Your task to perform on an android device: Open maps Image 0: 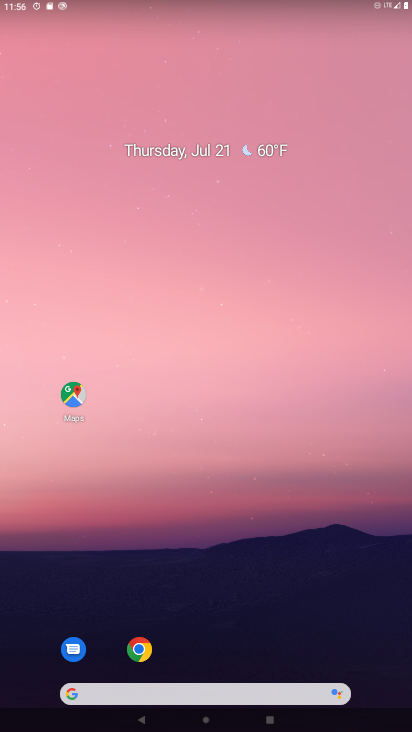
Step 0: click (73, 395)
Your task to perform on an android device: Open maps Image 1: 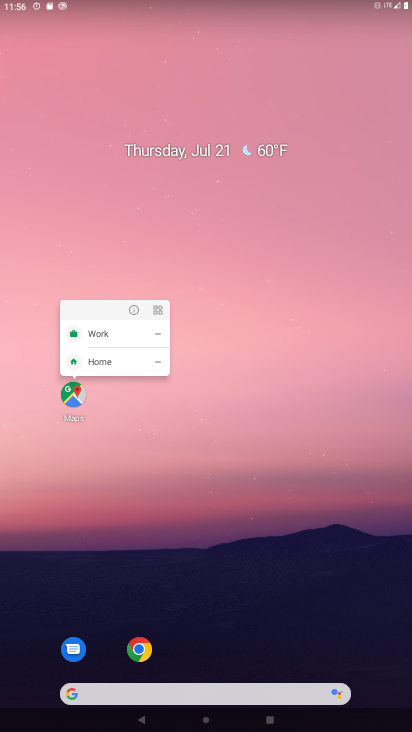
Step 1: click (73, 395)
Your task to perform on an android device: Open maps Image 2: 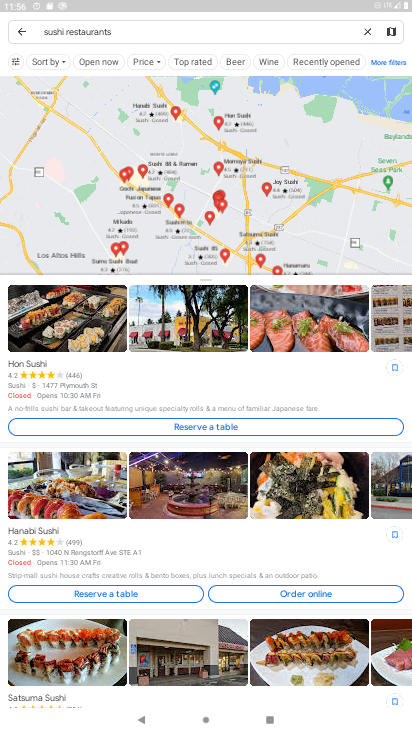
Step 2: task complete